Your task to perform on an android device: Search for electric lawnmowers on Home Depot Image 0: 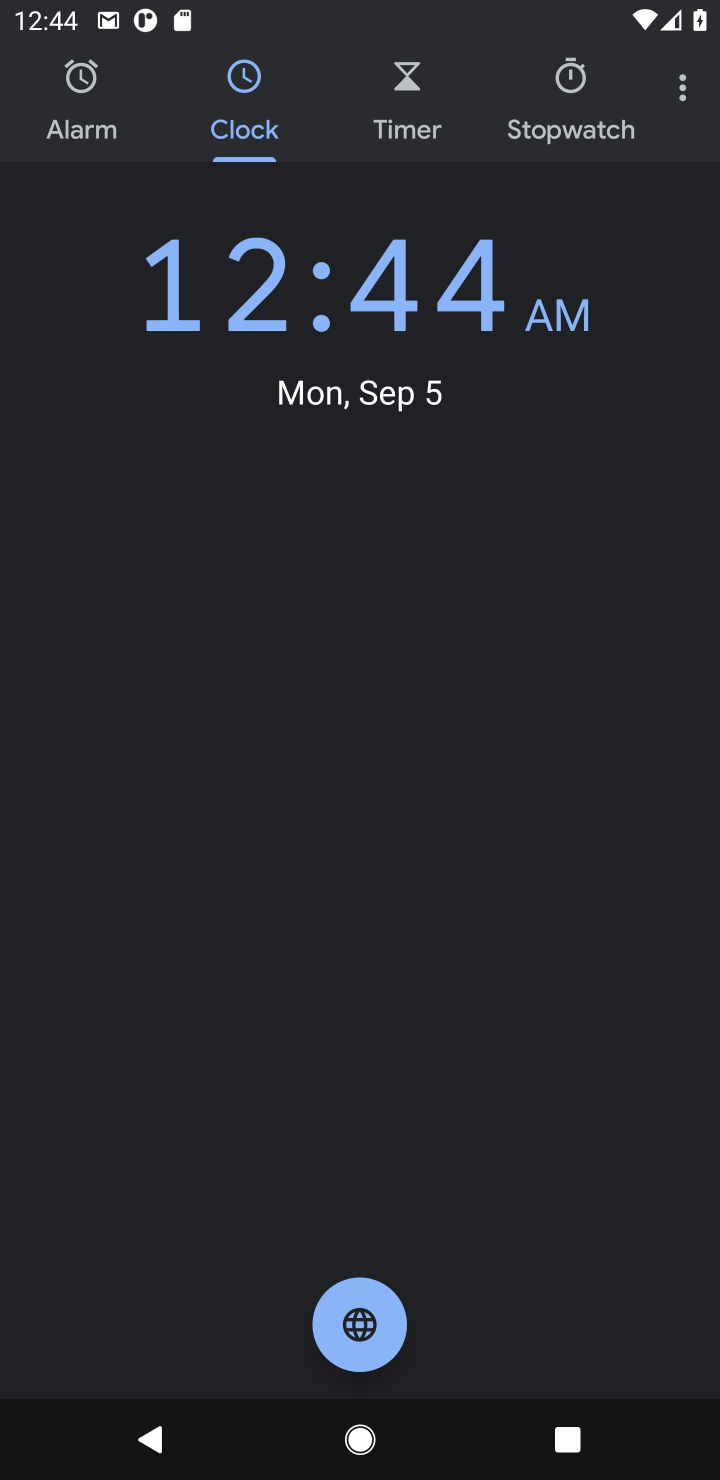
Step 0: task complete